Your task to perform on an android device: Open Google Chrome and open the bookmarks view Image 0: 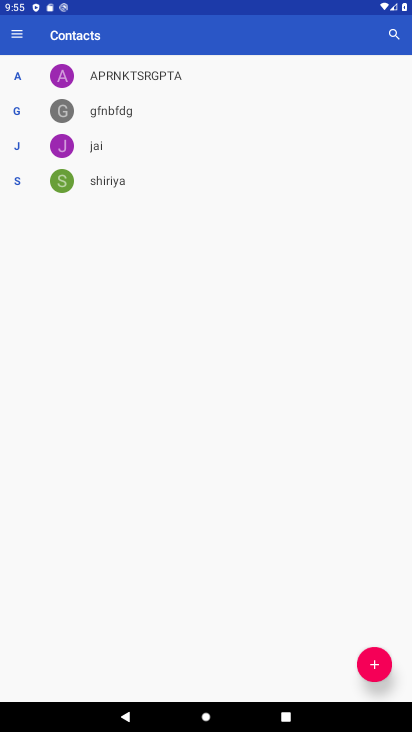
Step 0: press home button
Your task to perform on an android device: Open Google Chrome and open the bookmarks view Image 1: 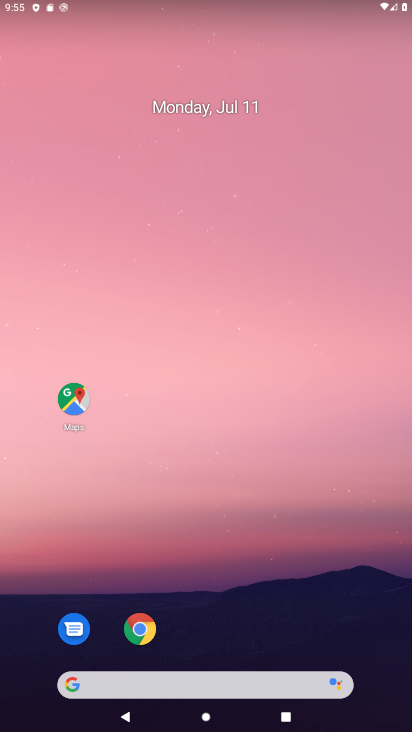
Step 1: click (145, 620)
Your task to perform on an android device: Open Google Chrome and open the bookmarks view Image 2: 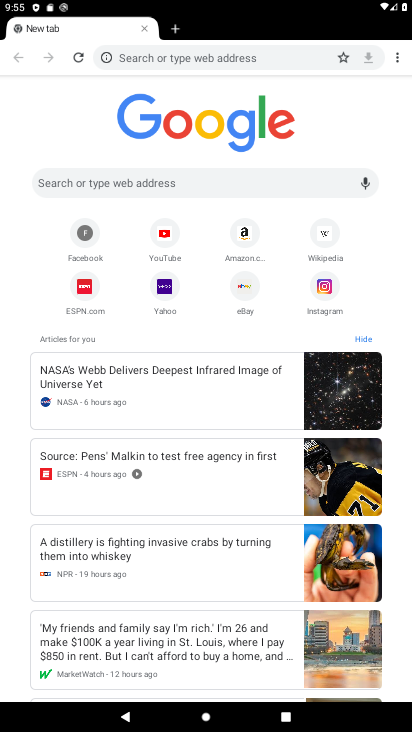
Step 2: click (398, 55)
Your task to perform on an android device: Open Google Chrome and open the bookmarks view Image 3: 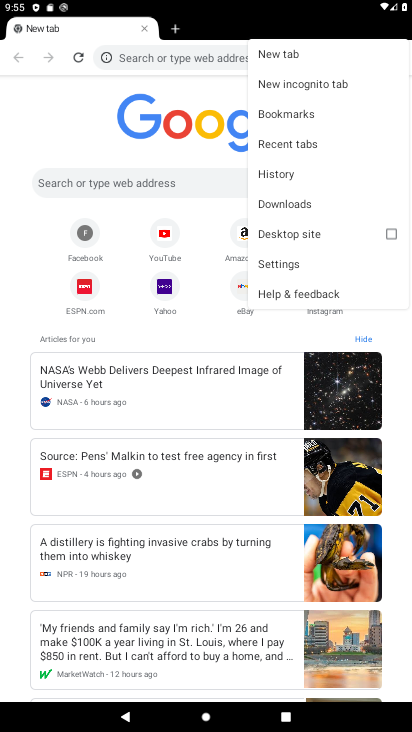
Step 3: click (308, 117)
Your task to perform on an android device: Open Google Chrome and open the bookmarks view Image 4: 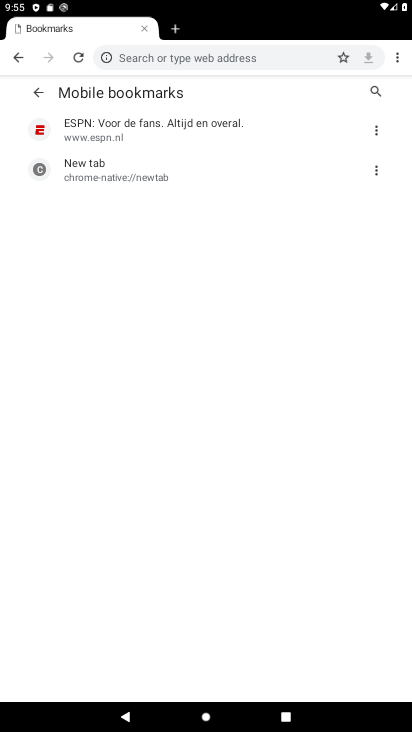
Step 4: task complete